Your task to perform on an android device: search for starred emails in the gmail app Image 0: 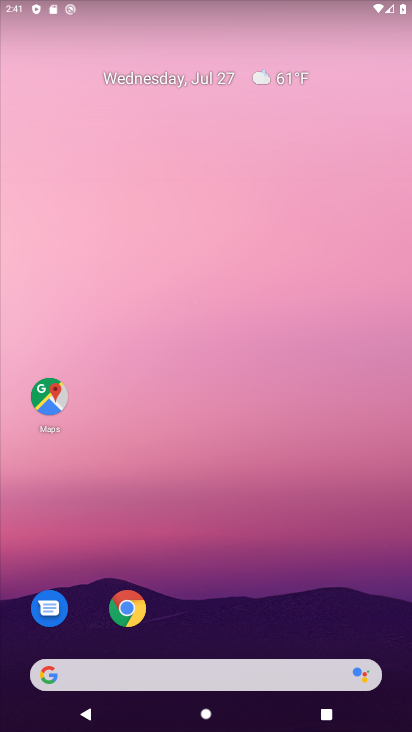
Step 0: drag from (269, 599) to (281, 9)
Your task to perform on an android device: search for starred emails in the gmail app Image 1: 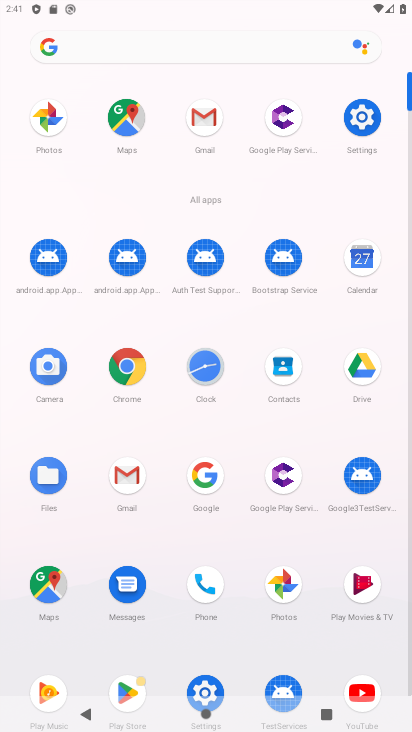
Step 1: click (129, 475)
Your task to perform on an android device: search for starred emails in the gmail app Image 2: 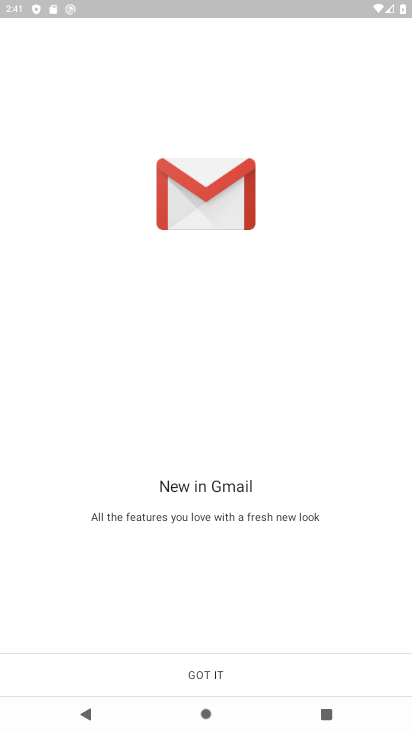
Step 2: click (329, 662)
Your task to perform on an android device: search for starred emails in the gmail app Image 3: 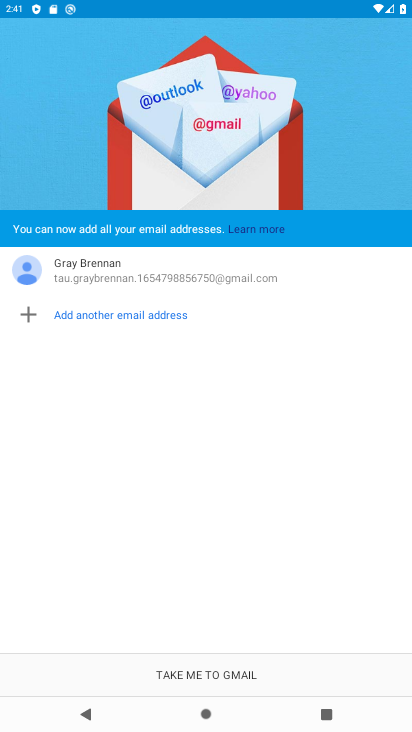
Step 3: click (329, 662)
Your task to perform on an android device: search for starred emails in the gmail app Image 4: 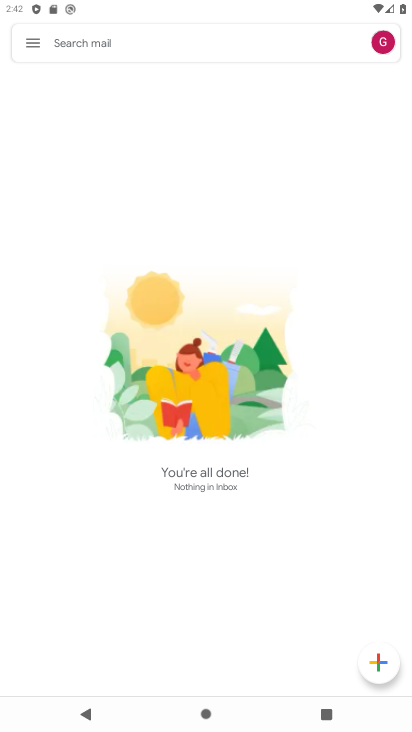
Step 4: click (30, 48)
Your task to perform on an android device: search for starred emails in the gmail app Image 5: 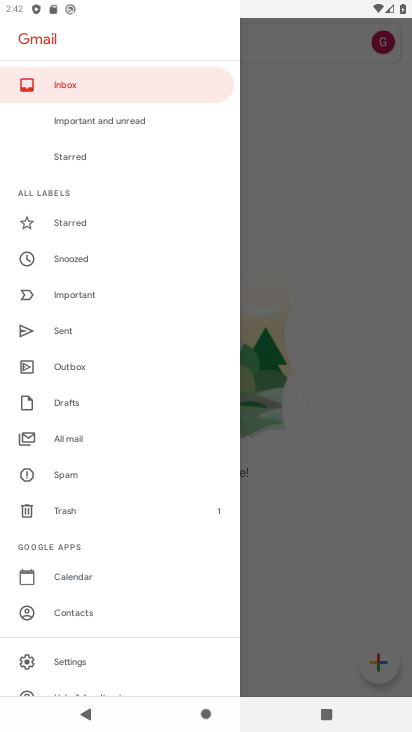
Step 5: click (67, 226)
Your task to perform on an android device: search for starred emails in the gmail app Image 6: 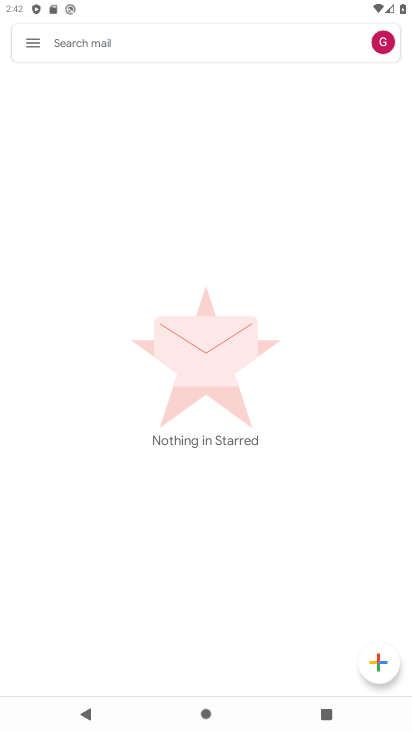
Step 6: task complete